Your task to perform on an android device: open app "YouTube Kids" (install if not already installed), go to login, and select forgot password Image 0: 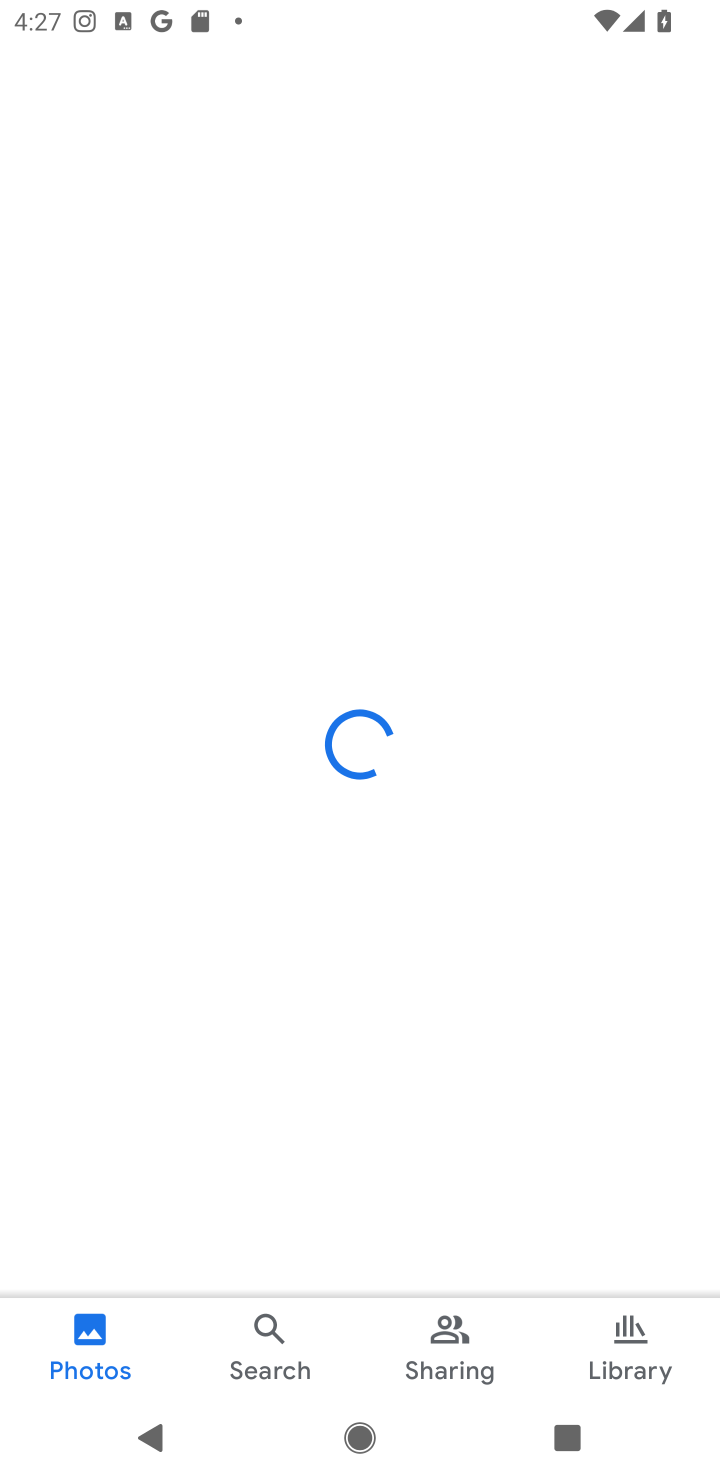
Step 0: press home button
Your task to perform on an android device: open app "YouTube Kids" (install if not already installed), go to login, and select forgot password Image 1: 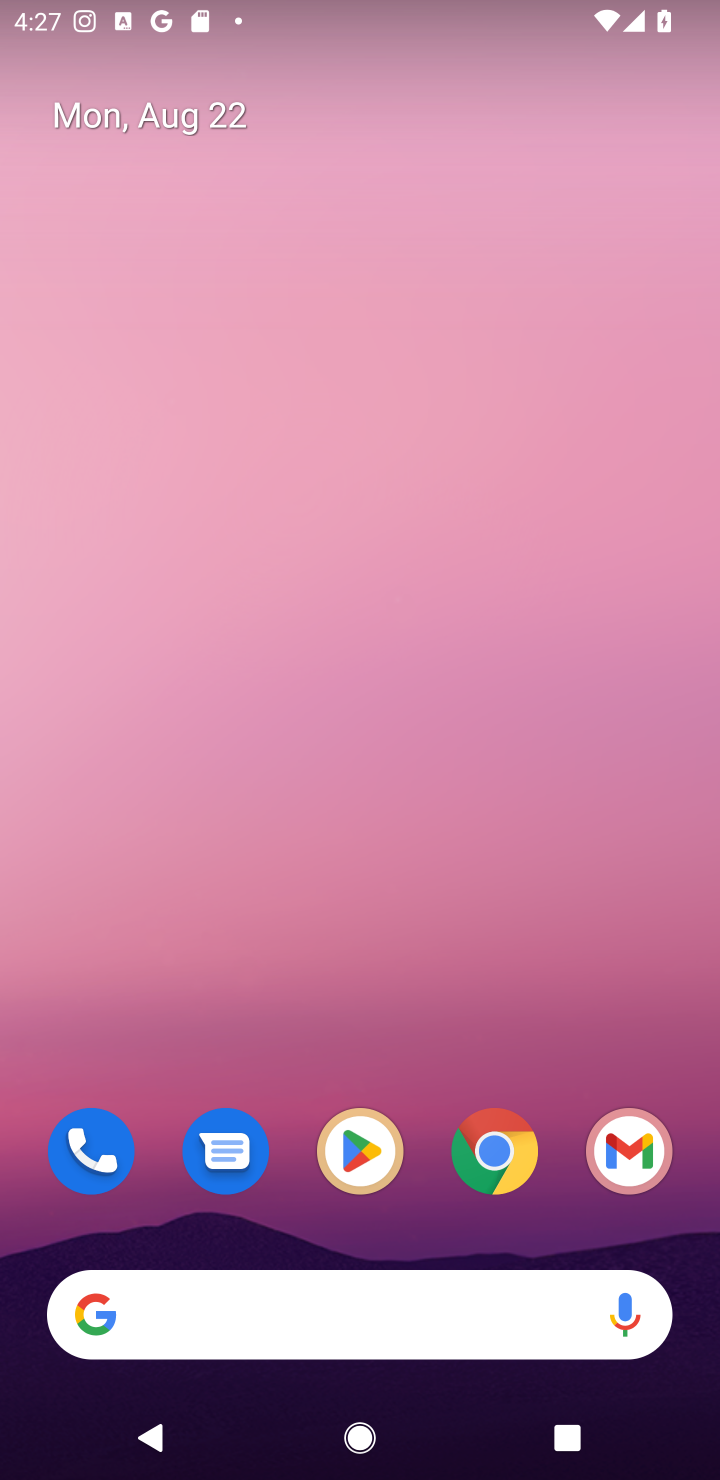
Step 1: click (358, 1138)
Your task to perform on an android device: open app "YouTube Kids" (install if not already installed), go to login, and select forgot password Image 2: 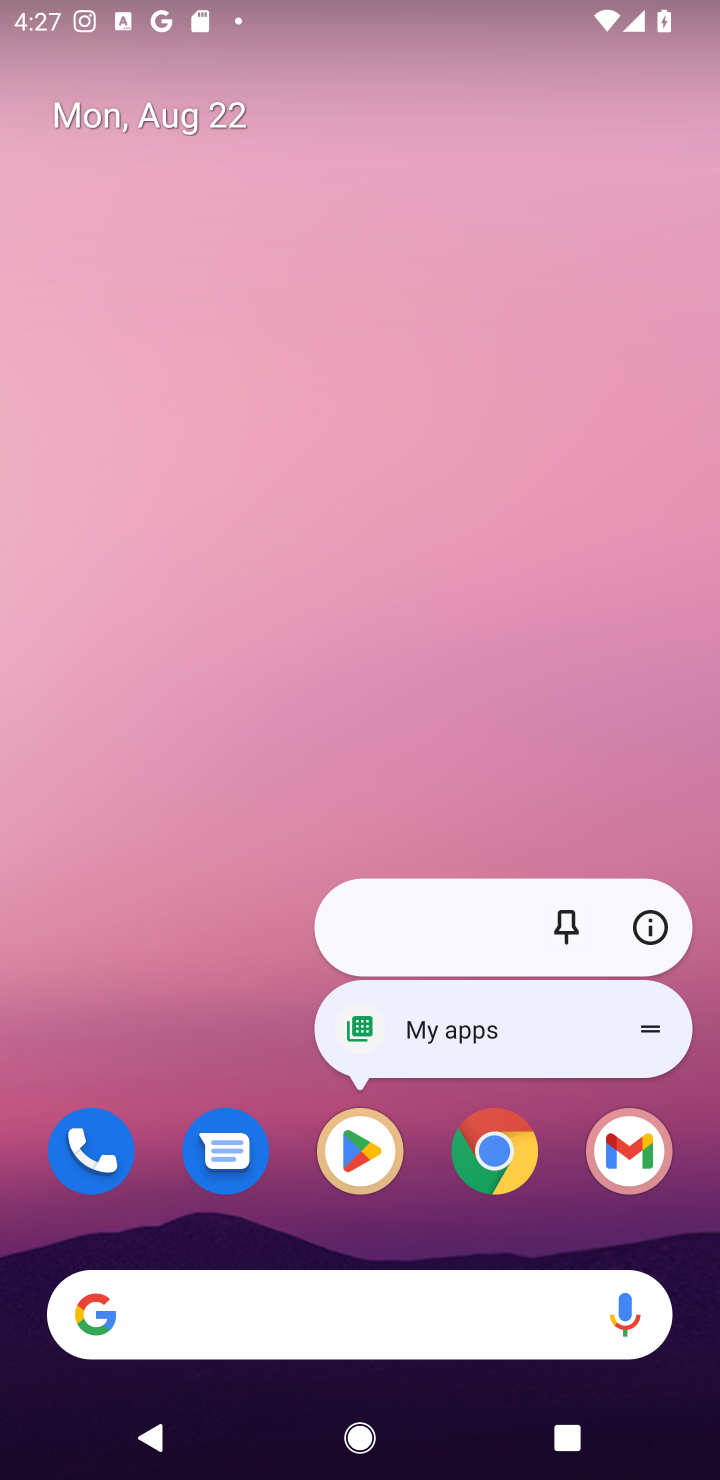
Step 2: click (357, 1151)
Your task to perform on an android device: open app "YouTube Kids" (install if not already installed), go to login, and select forgot password Image 3: 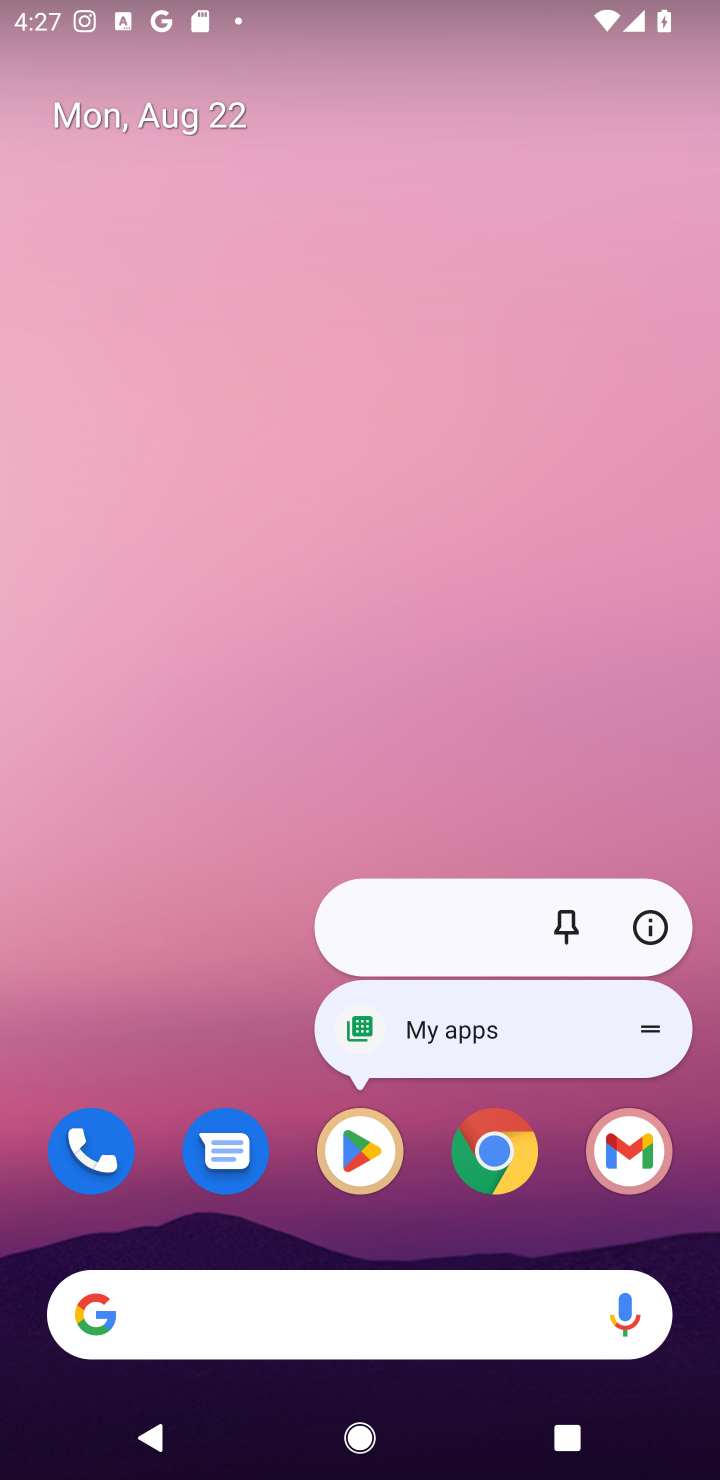
Step 3: click (357, 1148)
Your task to perform on an android device: open app "YouTube Kids" (install if not already installed), go to login, and select forgot password Image 4: 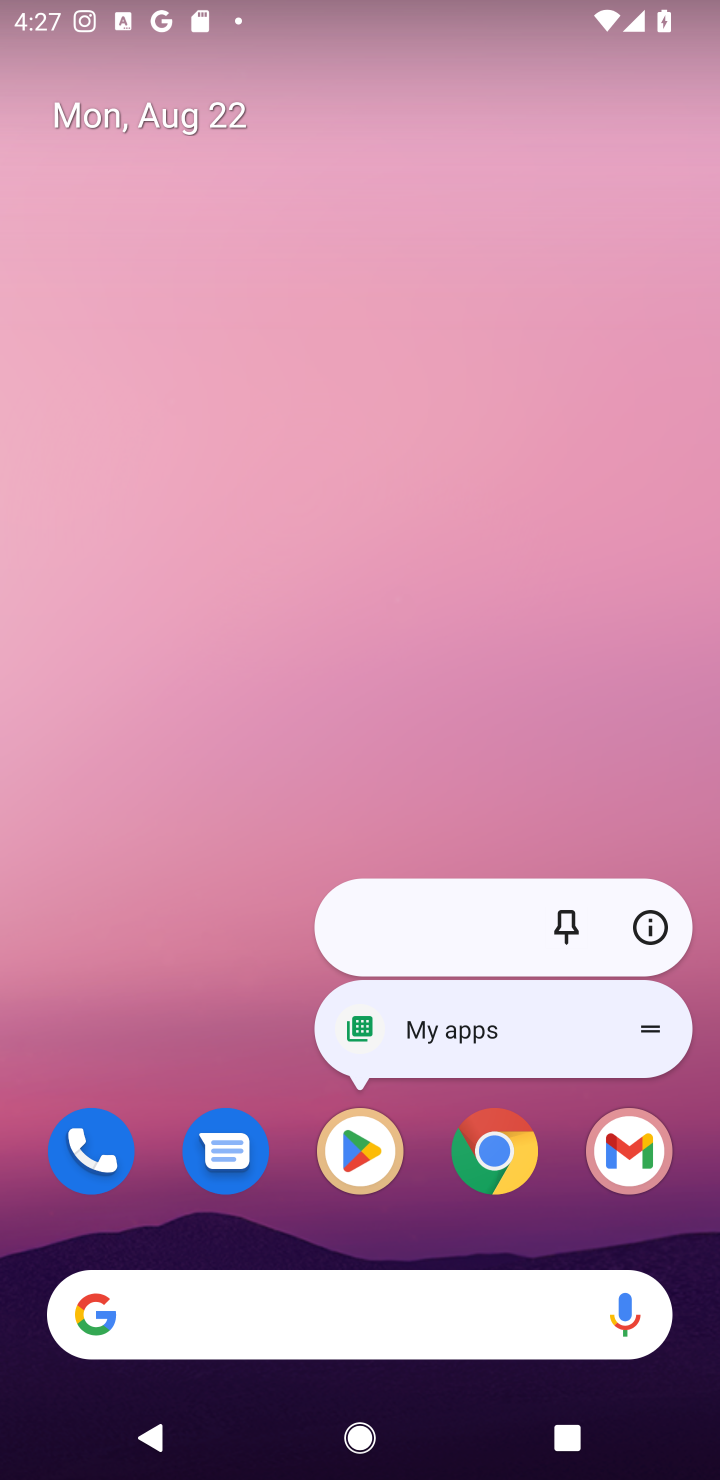
Step 4: click (357, 1157)
Your task to perform on an android device: open app "YouTube Kids" (install if not already installed), go to login, and select forgot password Image 5: 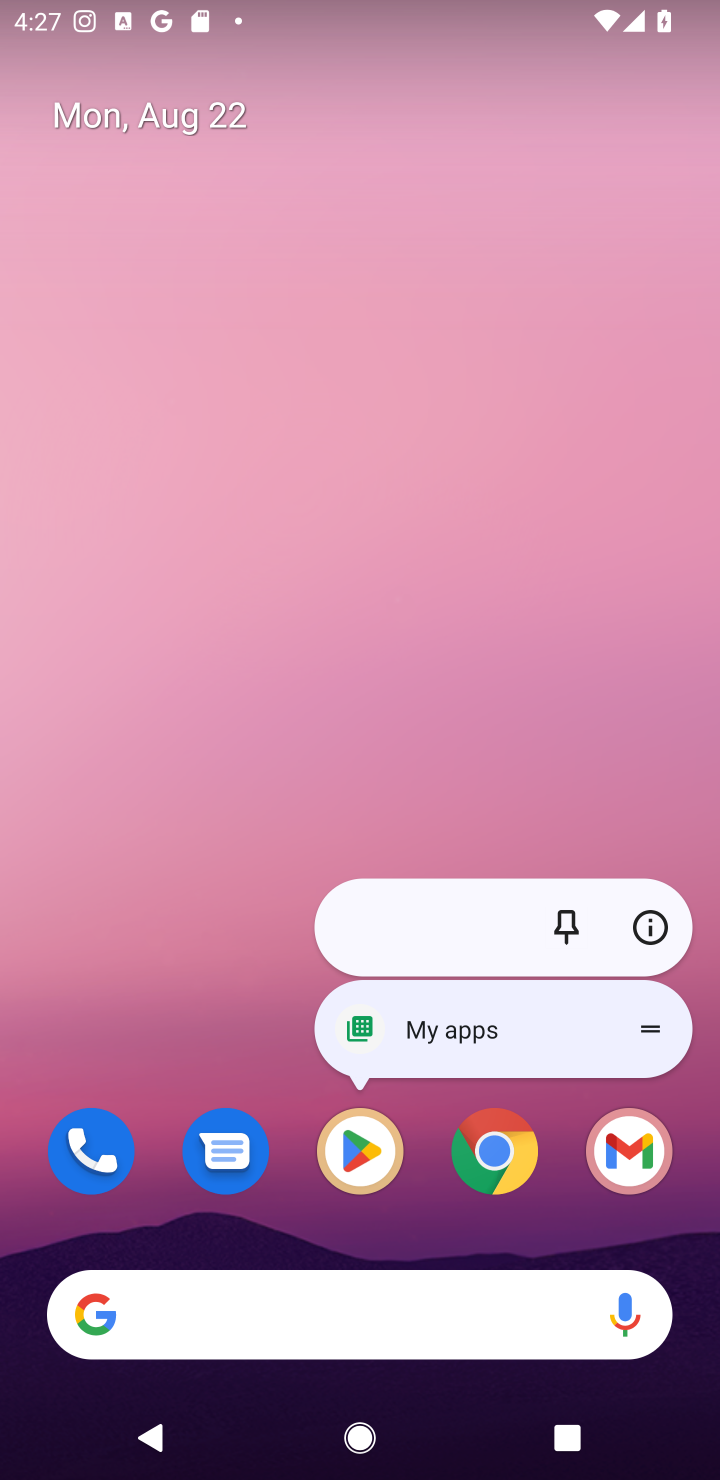
Step 5: click (351, 1155)
Your task to perform on an android device: open app "YouTube Kids" (install if not already installed), go to login, and select forgot password Image 6: 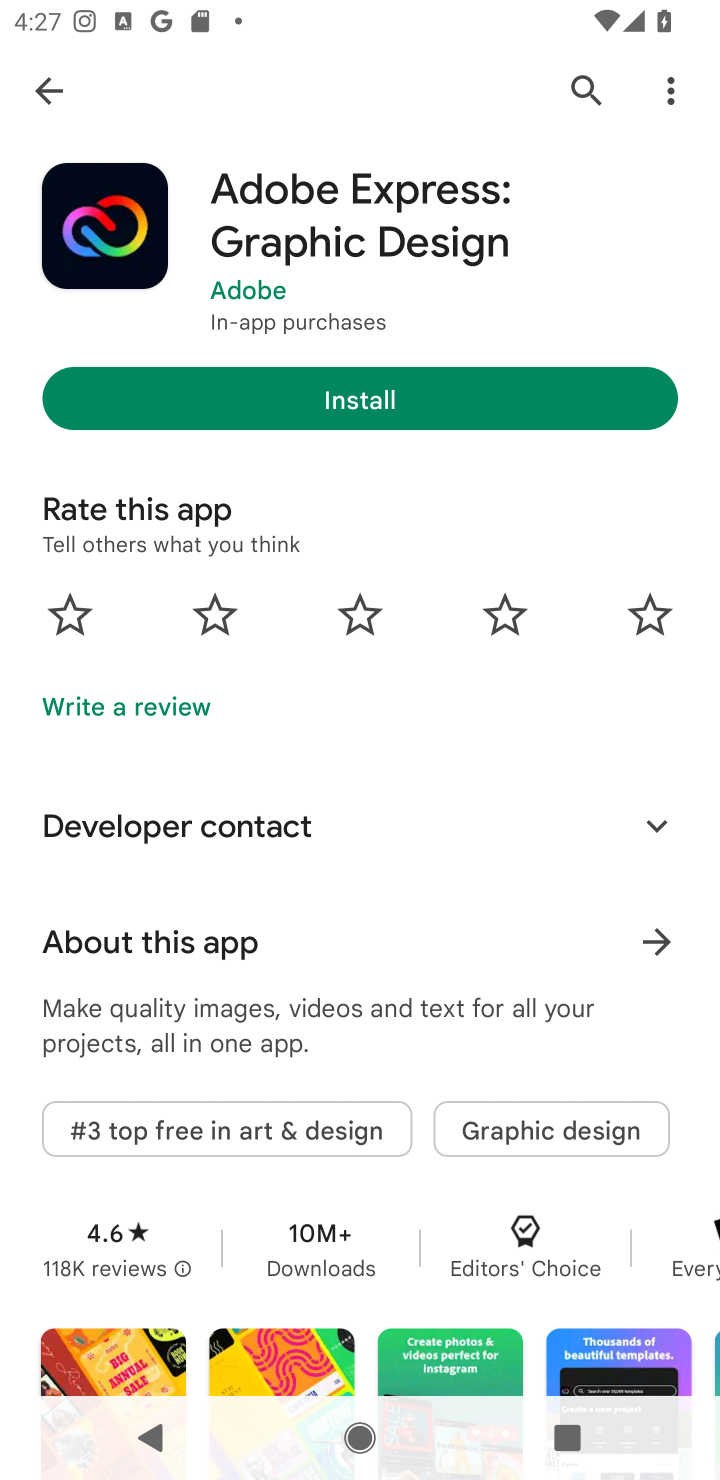
Step 6: click (583, 86)
Your task to perform on an android device: open app "YouTube Kids" (install if not already installed), go to login, and select forgot password Image 7: 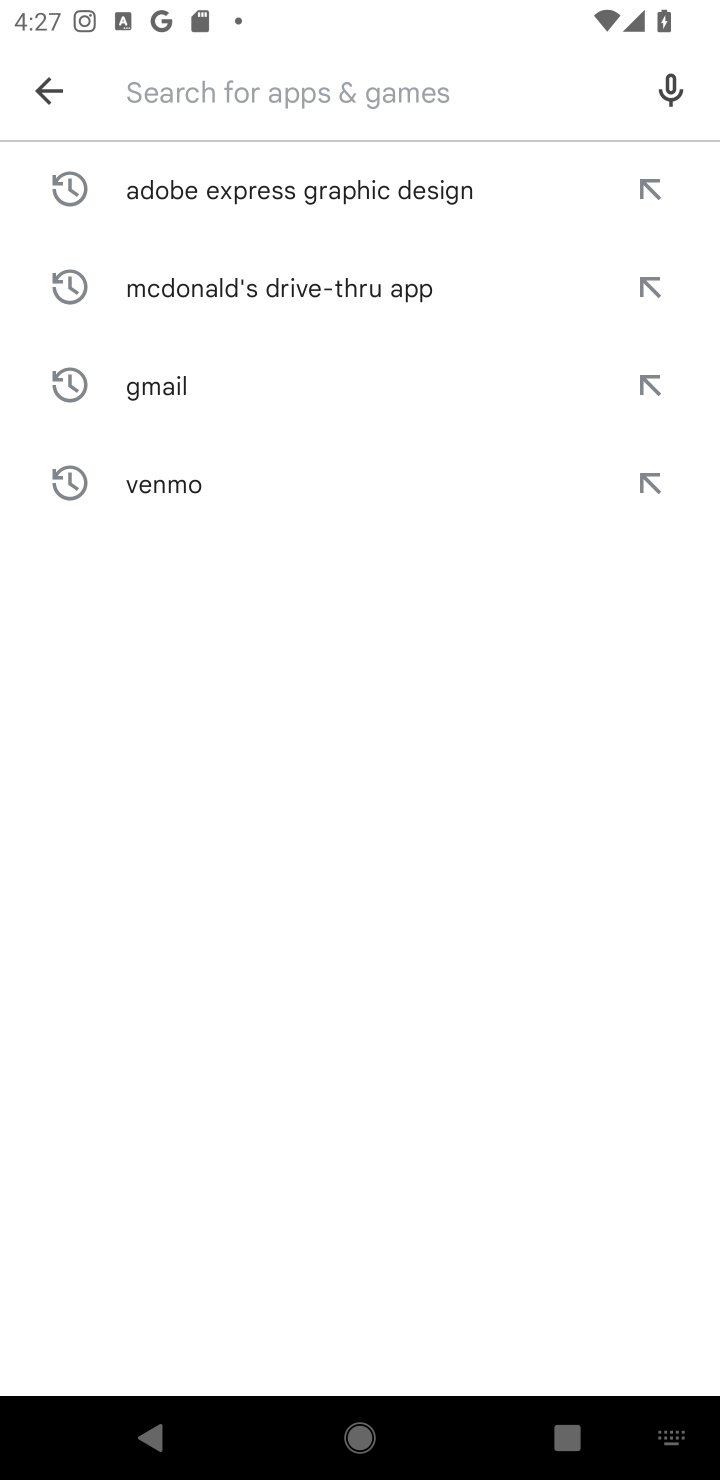
Step 7: type "YouTube Kids"
Your task to perform on an android device: open app "YouTube Kids" (install if not already installed), go to login, and select forgot password Image 8: 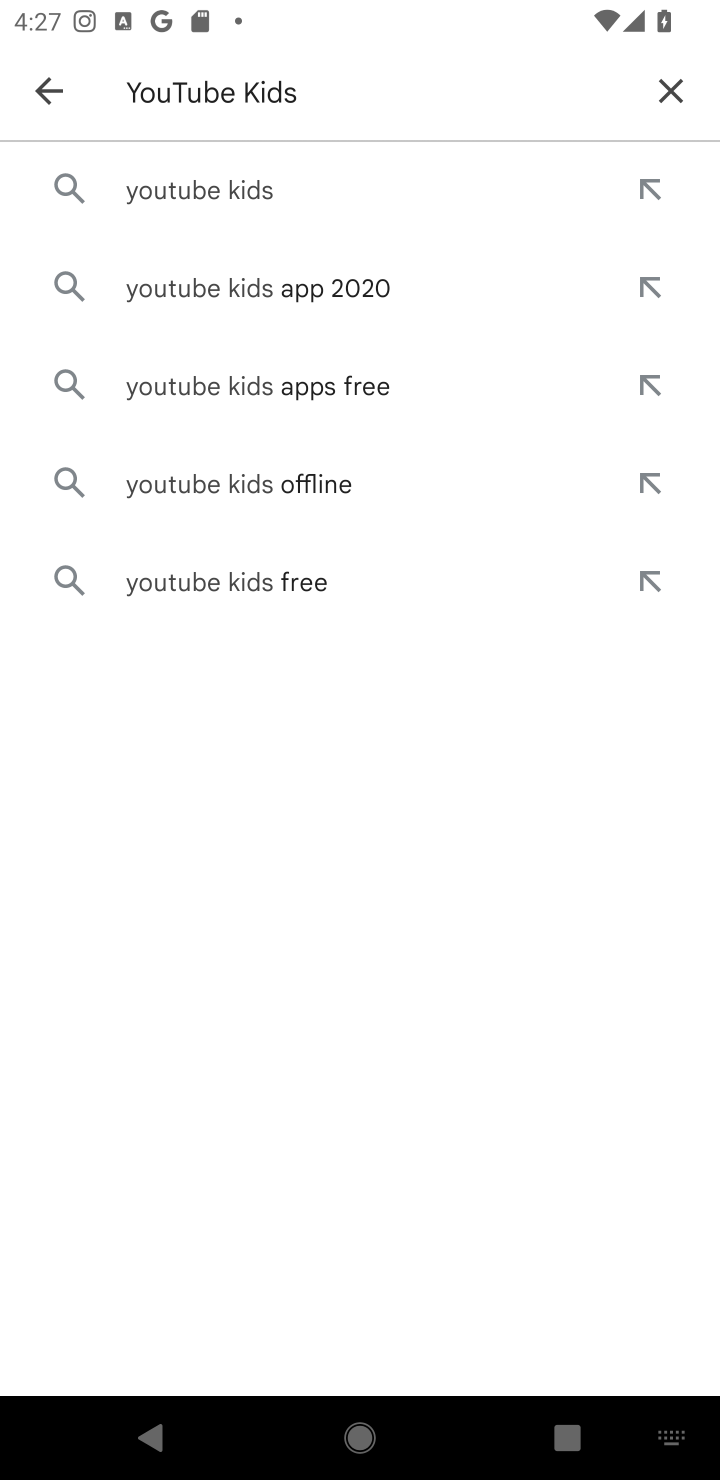
Step 8: click (244, 190)
Your task to perform on an android device: open app "YouTube Kids" (install if not already installed), go to login, and select forgot password Image 9: 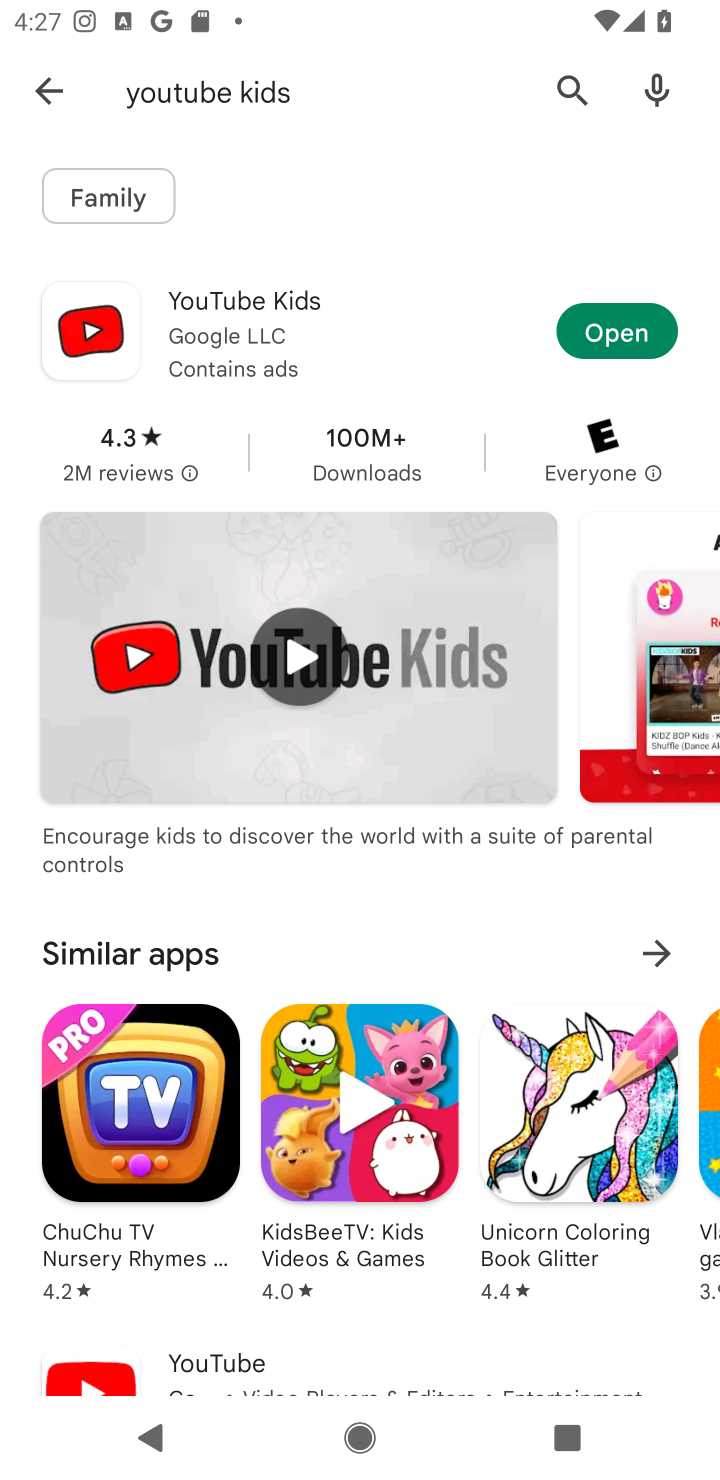
Step 9: click (616, 337)
Your task to perform on an android device: open app "YouTube Kids" (install if not already installed), go to login, and select forgot password Image 10: 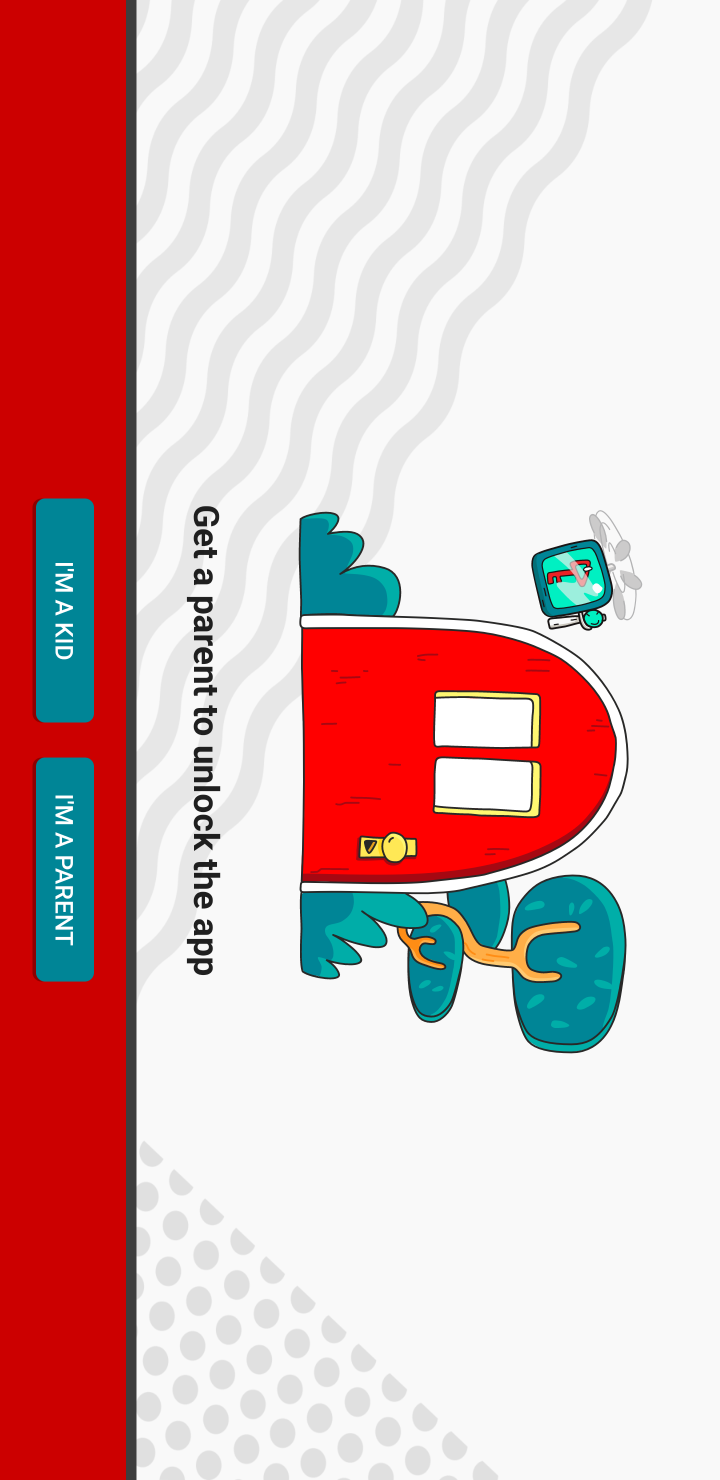
Step 10: task complete